Your task to perform on an android device: What's the weather going to be tomorrow? Image 0: 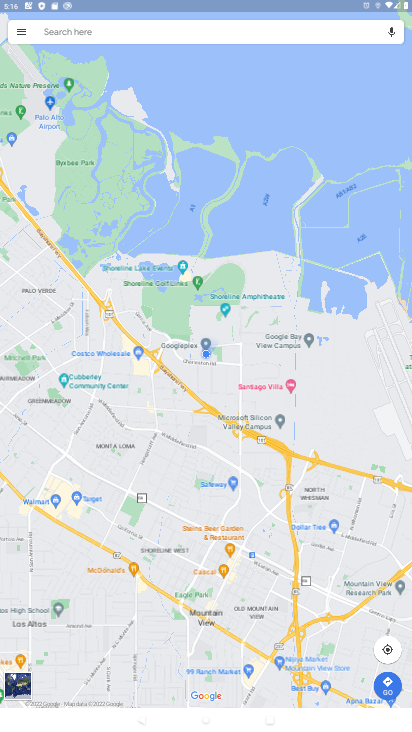
Step 0: press home button
Your task to perform on an android device: What's the weather going to be tomorrow? Image 1: 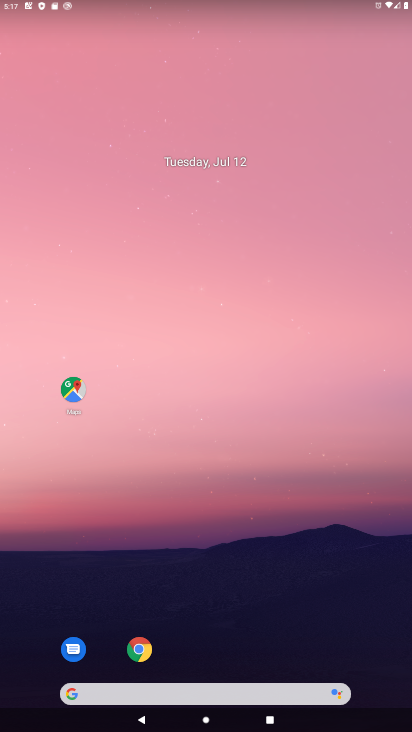
Step 1: drag from (189, 696) to (210, 294)
Your task to perform on an android device: What's the weather going to be tomorrow? Image 2: 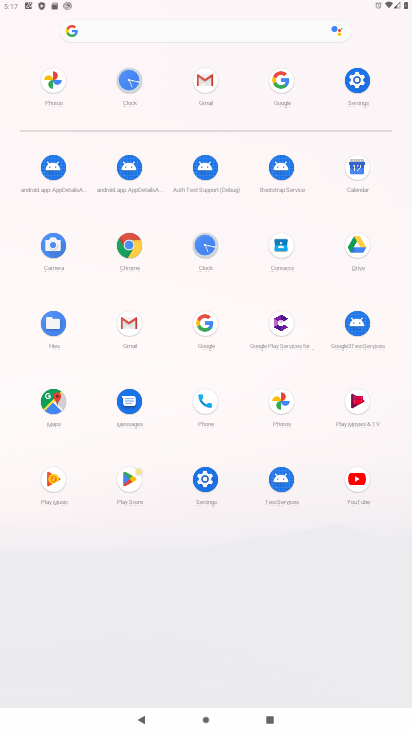
Step 2: click (279, 81)
Your task to perform on an android device: What's the weather going to be tomorrow? Image 3: 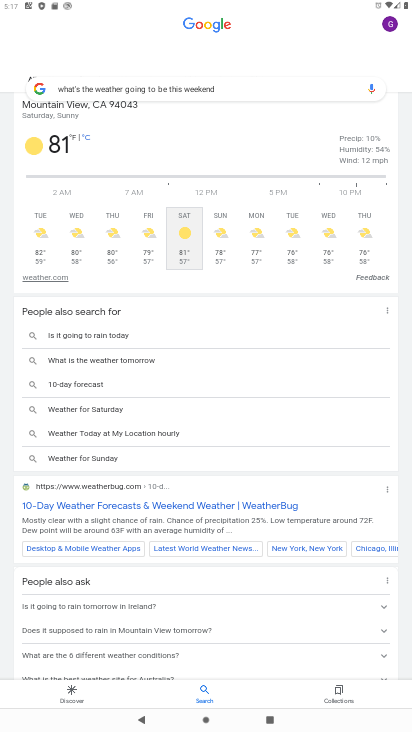
Step 3: click (261, 91)
Your task to perform on an android device: What's the weather going to be tomorrow? Image 4: 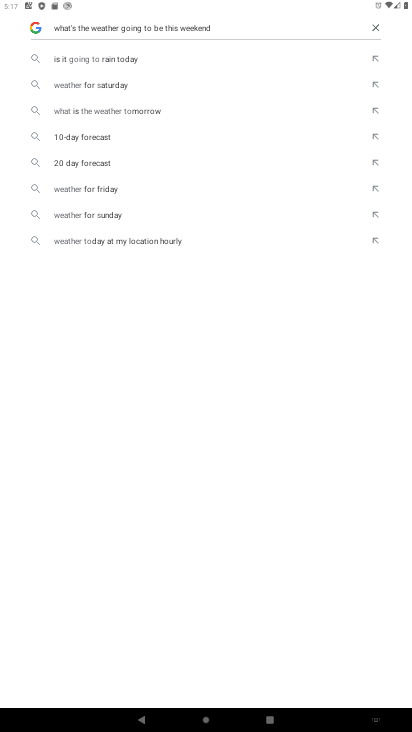
Step 4: click (376, 25)
Your task to perform on an android device: What's the weather going to be tomorrow? Image 5: 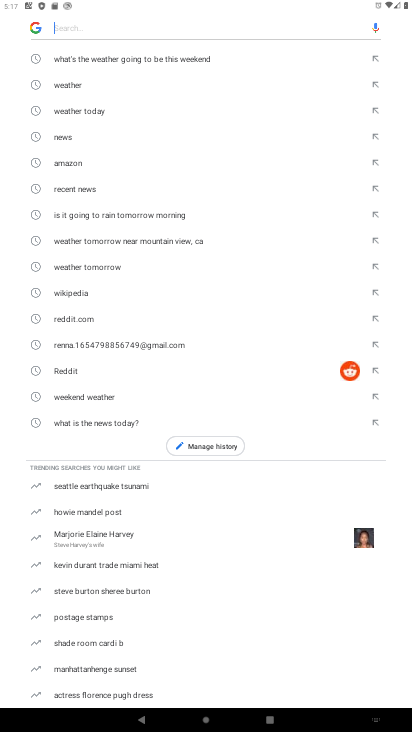
Step 5: type "What's weather going to be tomorrow?"
Your task to perform on an android device: What's the weather going to be tomorrow? Image 6: 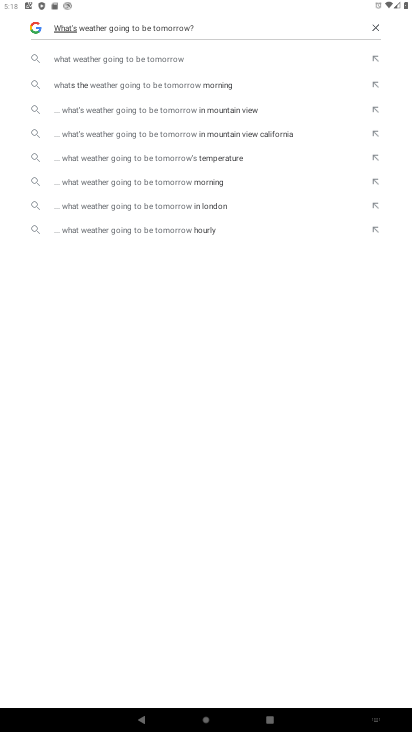
Step 6: click (121, 56)
Your task to perform on an android device: What's the weather going to be tomorrow? Image 7: 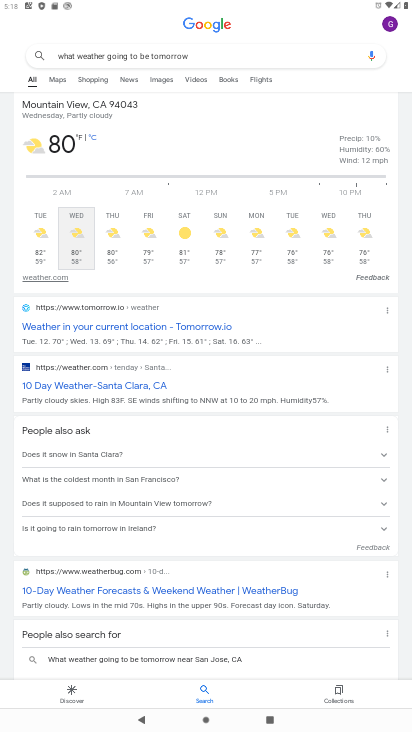
Step 7: task complete